Your task to perform on an android device: turn on sleep mode Image 0: 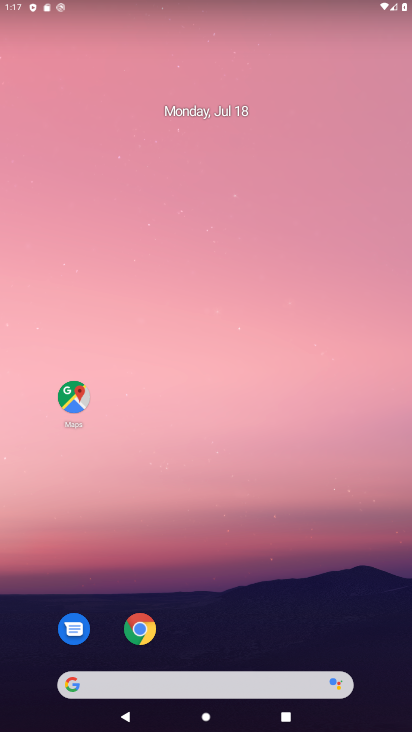
Step 0: press home button
Your task to perform on an android device: turn on sleep mode Image 1: 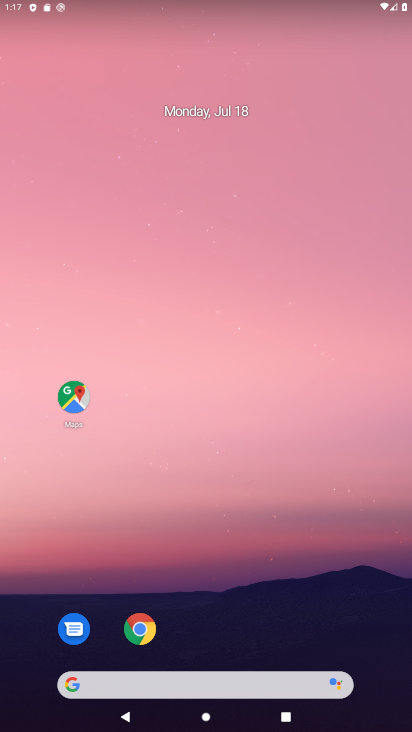
Step 1: drag from (220, 654) to (229, 102)
Your task to perform on an android device: turn on sleep mode Image 2: 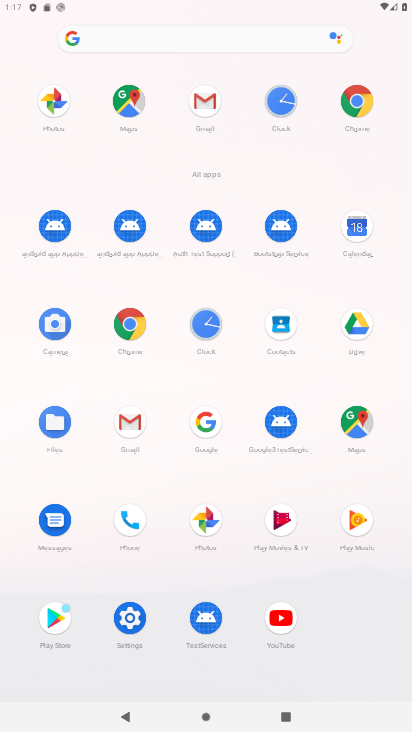
Step 2: click (126, 612)
Your task to perform on an android device: turn on sleep mode Image 3: 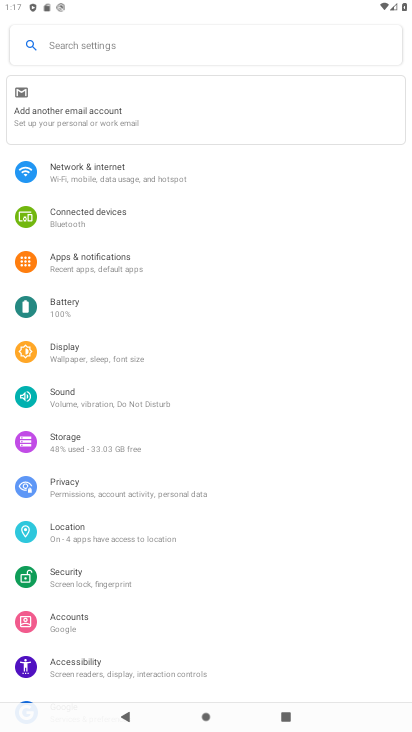
Step 3: click (86, 348)
Your task to perform on an android device: turn on sleep mode Image 4: 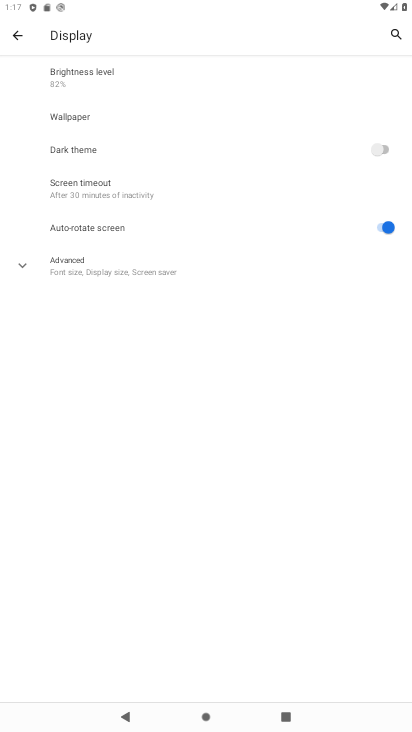
Step 4: click (23, 262)
Your task to perform on an android device: turn on sleep mode Image 5: 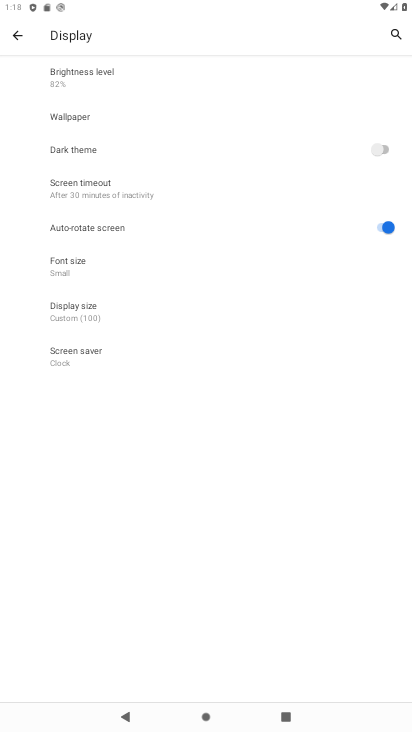
Step 5: task complete